Your task to perform on an android device: Open accessibility settings Image 0: 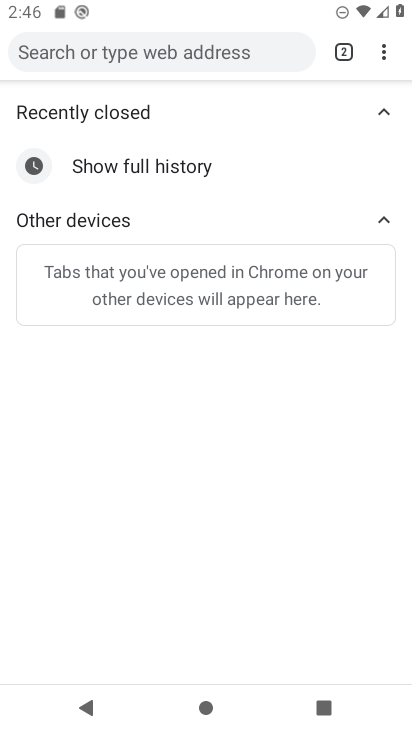
Step 0: press home button
Your task to perform on an android device: Open accessibility settings Image 1: 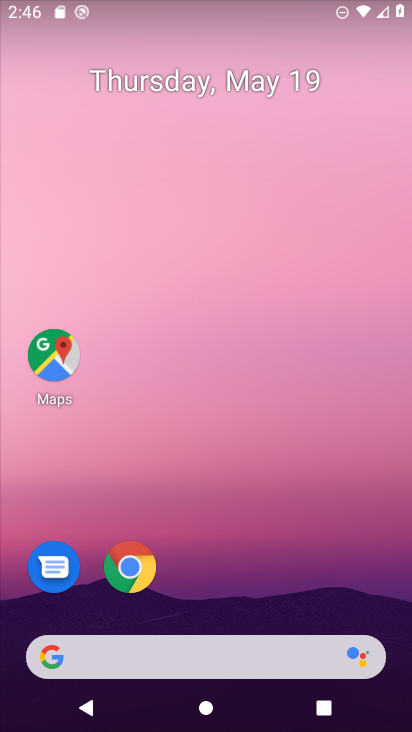
Step 1: drag from (263, 550) to (276, 75)
Your task to perform on an android device: Open accessibility settings Image 2: 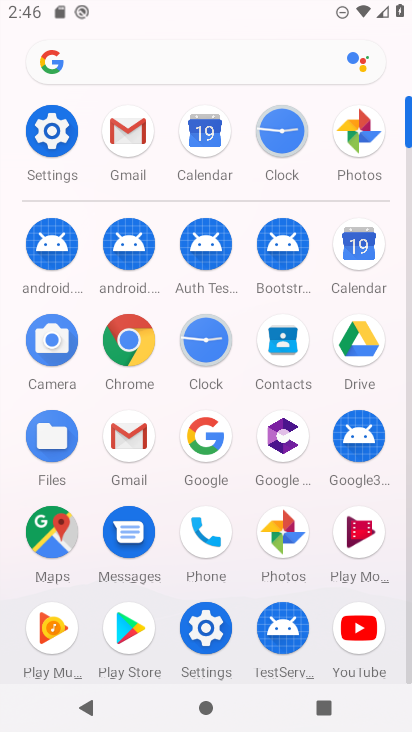
Step 2: click (48, 130)
Your task to perform on an android device: Open accessibility settings Image 3: 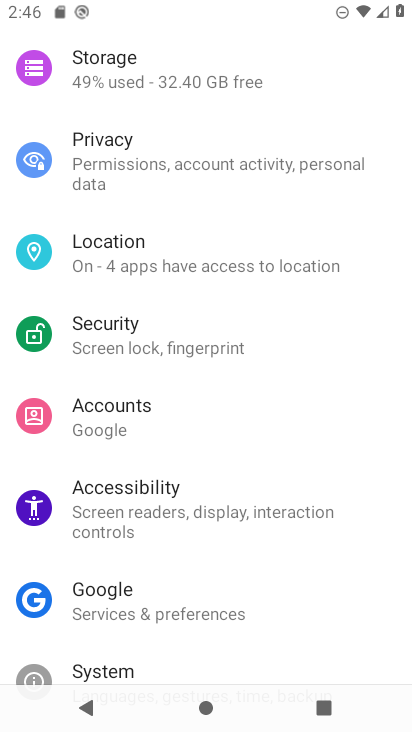
Step 3: click (197, 502)
Your task to perform on an android device: Open accessibility settings Image 4: 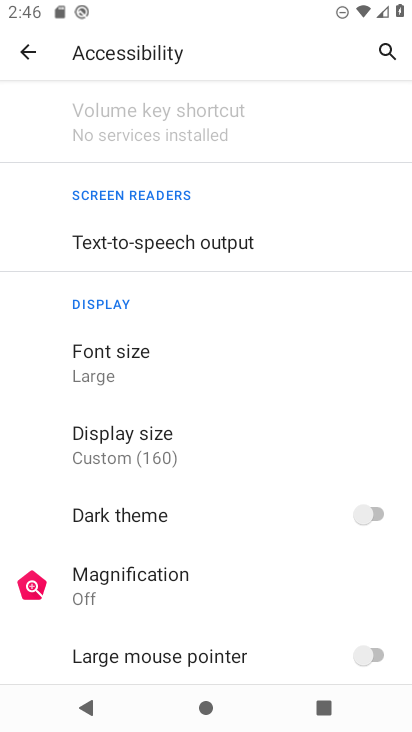
Step 4: task complete